Your task to perform on an android device: Open Chrome and go to settings Image 0: 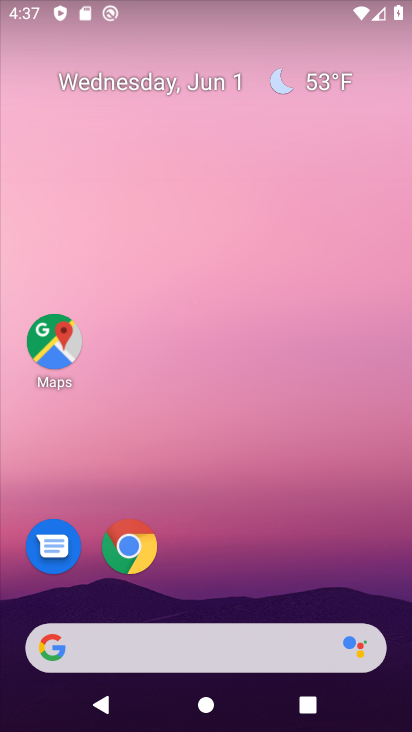
Step 0: drag from (266, 545) to (176, 36)
Your task to perform on an android device: Open Chrome and go to settings Image 1: 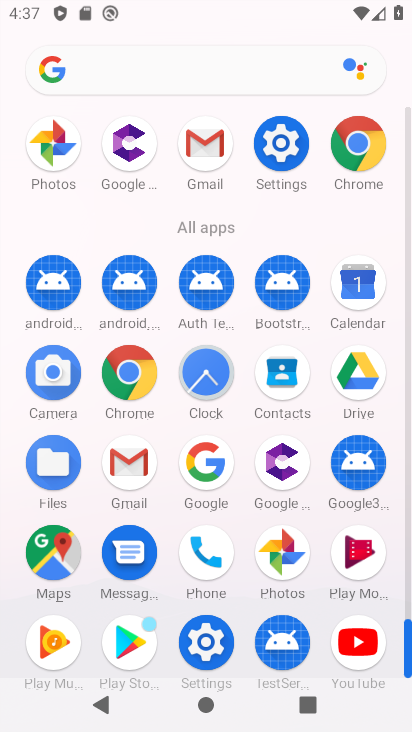
Step 1: drag from (13, 549) to (12, 201)
Your task to perform on an android device: Open Chrome and go to settings Image 2: 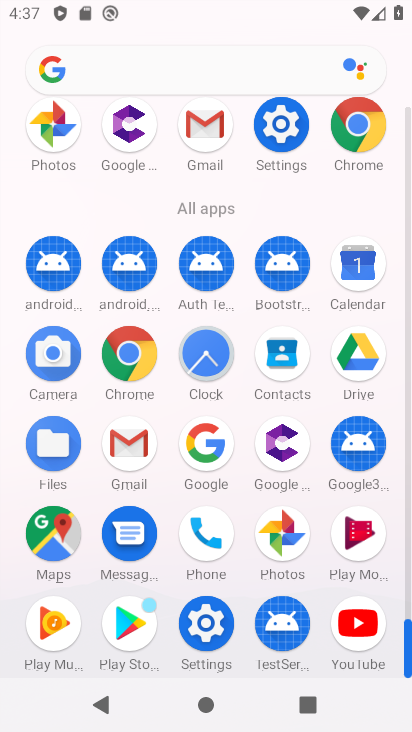
Step 2: click (129, 345)
Your task to perform on an android device: Open Chrome and go to settings Image 3: 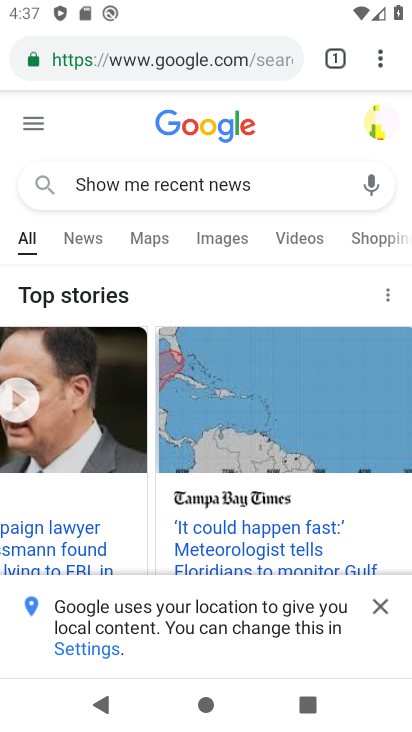
Step 3: task complete